Your task to perform on an android device: move a message to another label in the gmail app Image 0: 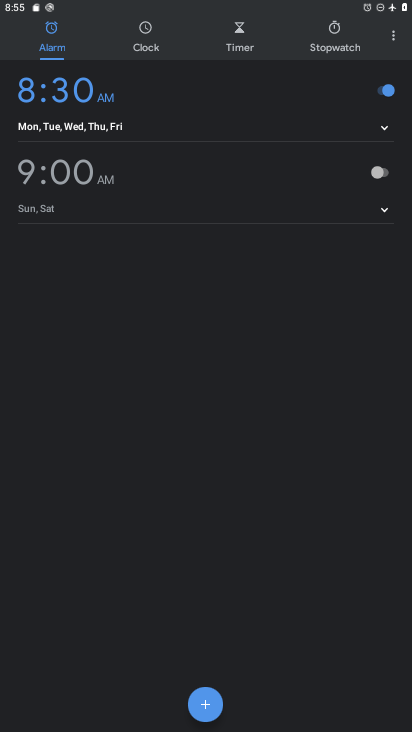
Step 0: press home button
Your task to perform on an android device: move a message to another label in the gmail app Image 1: 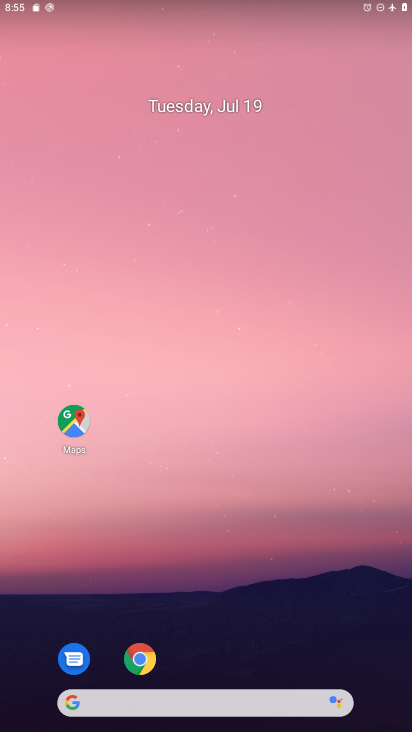
Step 1: drag from (276, 650) to (306, 207)
Your task to perform on an android device: move a message to another label in the gmail app Image 2: 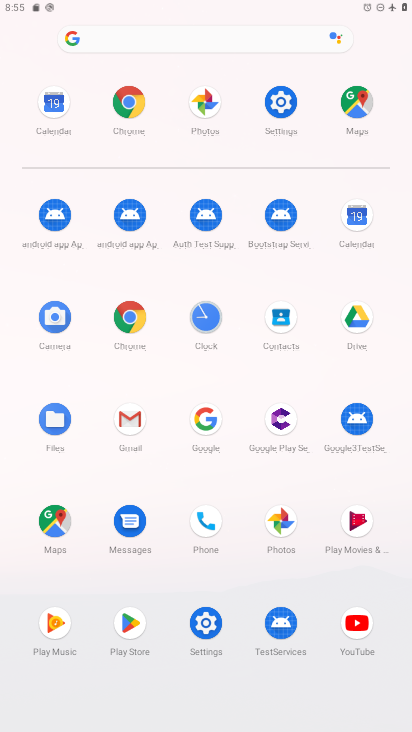
Step 2: click (133, 423)
Your task to perform on an android device: move a message to another label in the gmail app Image 3: 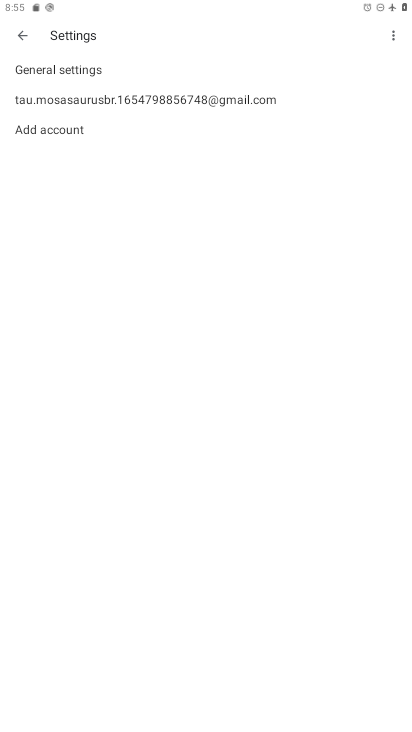
Step 3: click (13, 37)
Your task to perform on an android device: move a message to another label in the gmail app Image 4: 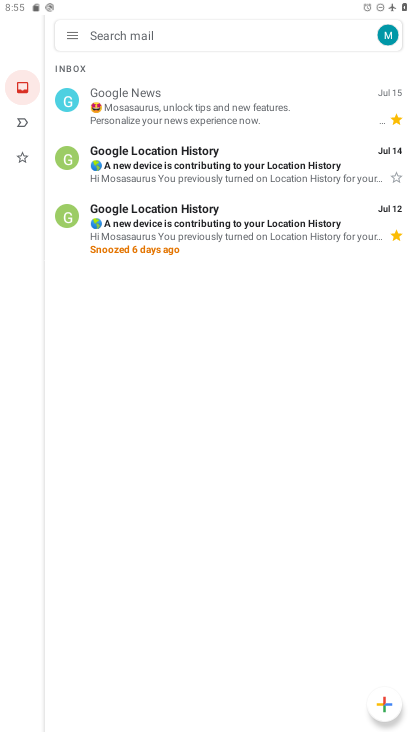
Step 4: click (149, 111)
Your task to perform on an android device: move a message to another label in the gmail app Image 5: 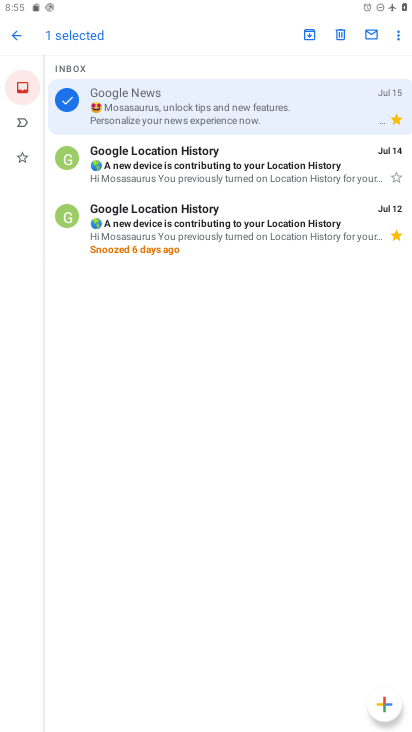
Step 5: click (400, 33)
Your task to perform on an android device: move a message to another label in the gmail app Image 6: 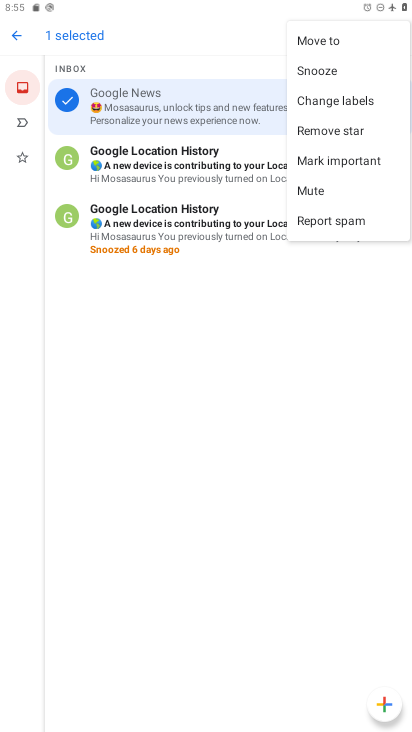
Step 6: click (312, 31)
Your task to perform on an android device: move a message to another label in the gmail app Image 7: 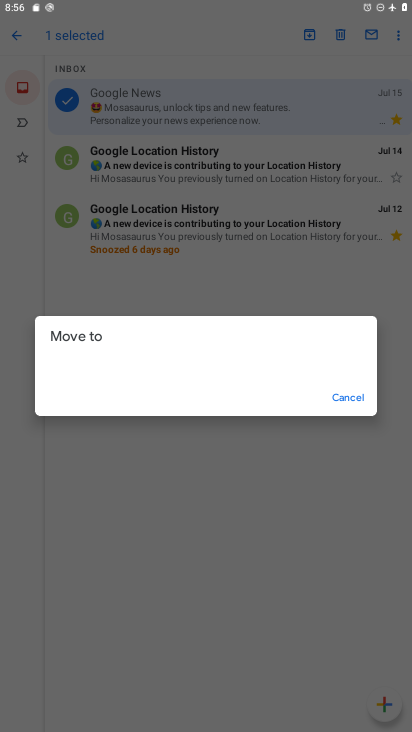
Step 7: task complete